Your task to perform on an android device: When is my next appointment? Image 0: 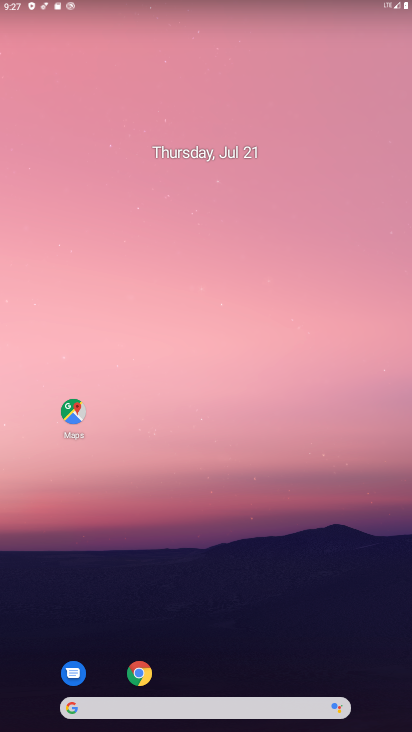
Step 0: drag from (206, 658) to (249, 178)
Your task to perform on an android device: When is my next appointment? Image 1: 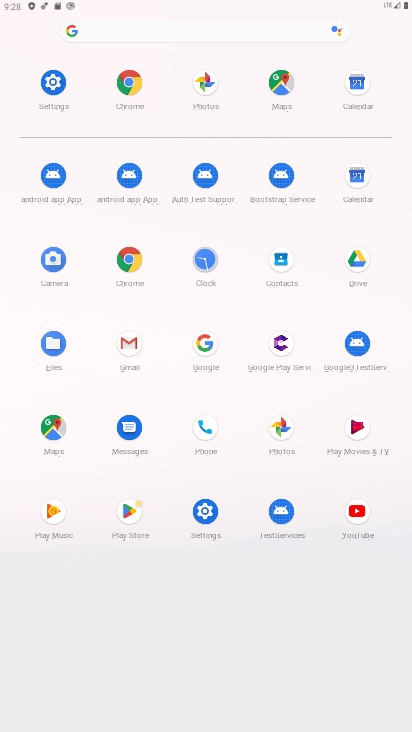
Step 1: click (357, 88)
Your task to perform on an android device: When is my next appointment? Image 2: 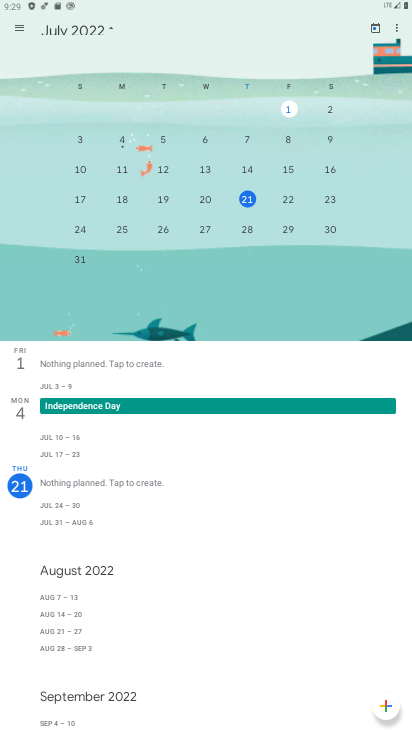
Step 2: click (296, 200)
Your task to perform on an android device: When is my next appointment? Image 3: 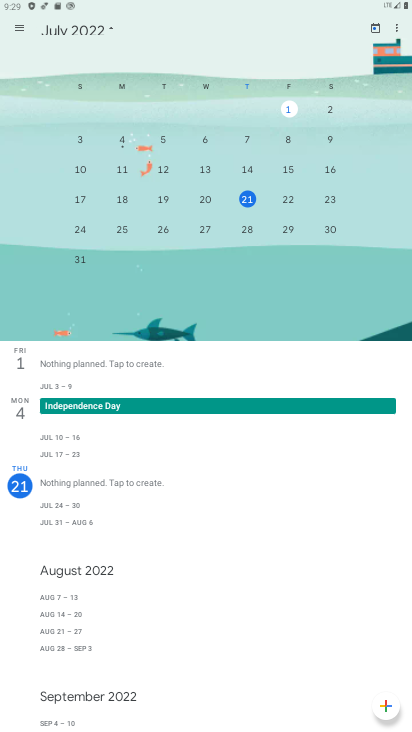
Step 3: click (336, 200)
Your task to perform on an android device: When is my next appointment? Image 4: 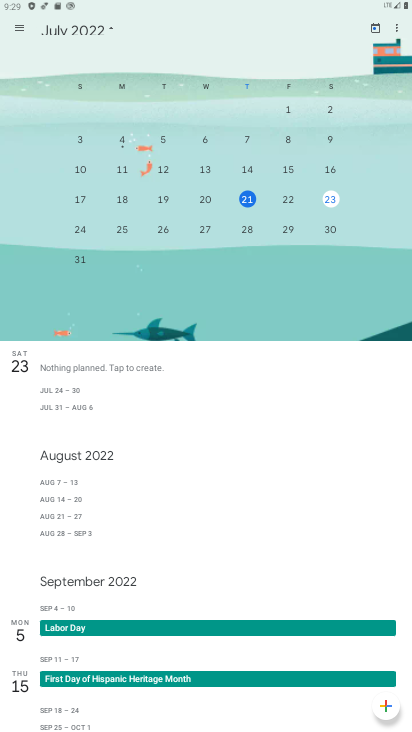
Step 4: click (104, 233)
Your task to perform on an android device: When is my next appointment? Image 5: 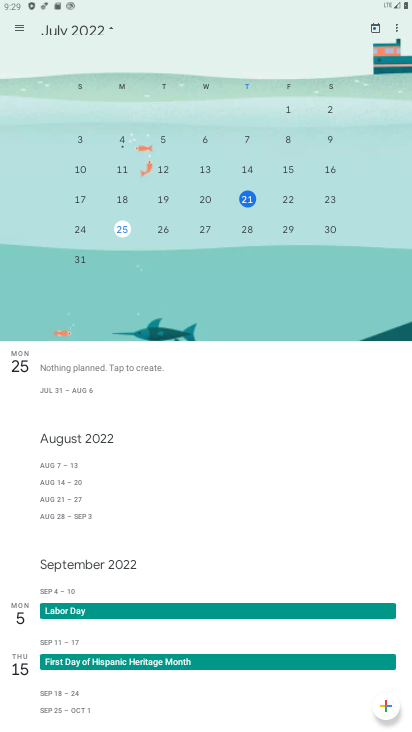
Step 5: task complete